Your task to perform on an android device: Show the shopping cart on amazon.com. Add "apple airpods pro" to the cart on amazon.com, then select checkout. Image 0: 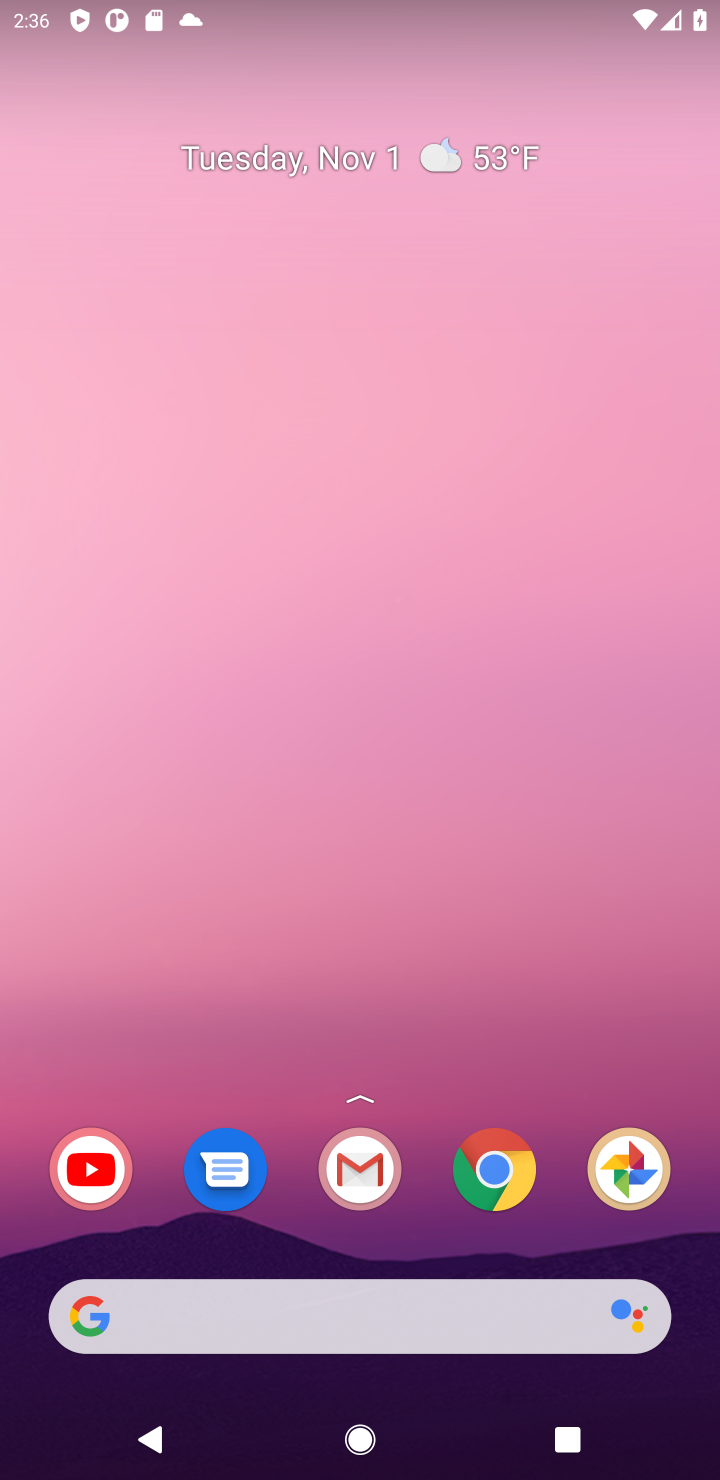
Step 0: click (507, 1198)
Your task to perform on an android device: Show the shopping cart on amazon.com. Add "apple airpods pro" to the cart on amazon.com, then select checkout. Image 1: 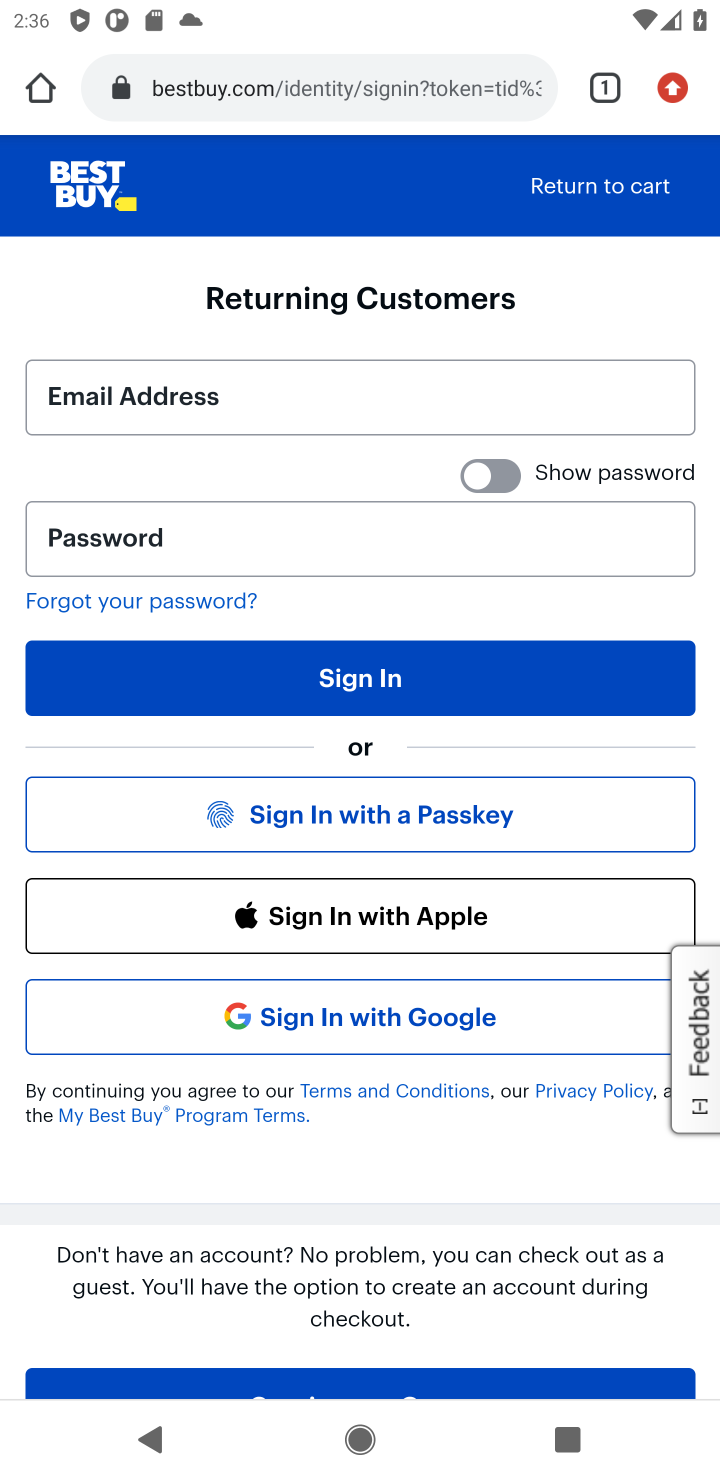
Step 1: click (296, 71)
Your task to perform on an android device: Show the shopping cart on amazon.com. Add "apple airpods pro" to the cart on amazon.com, then select checkout. Image 2: 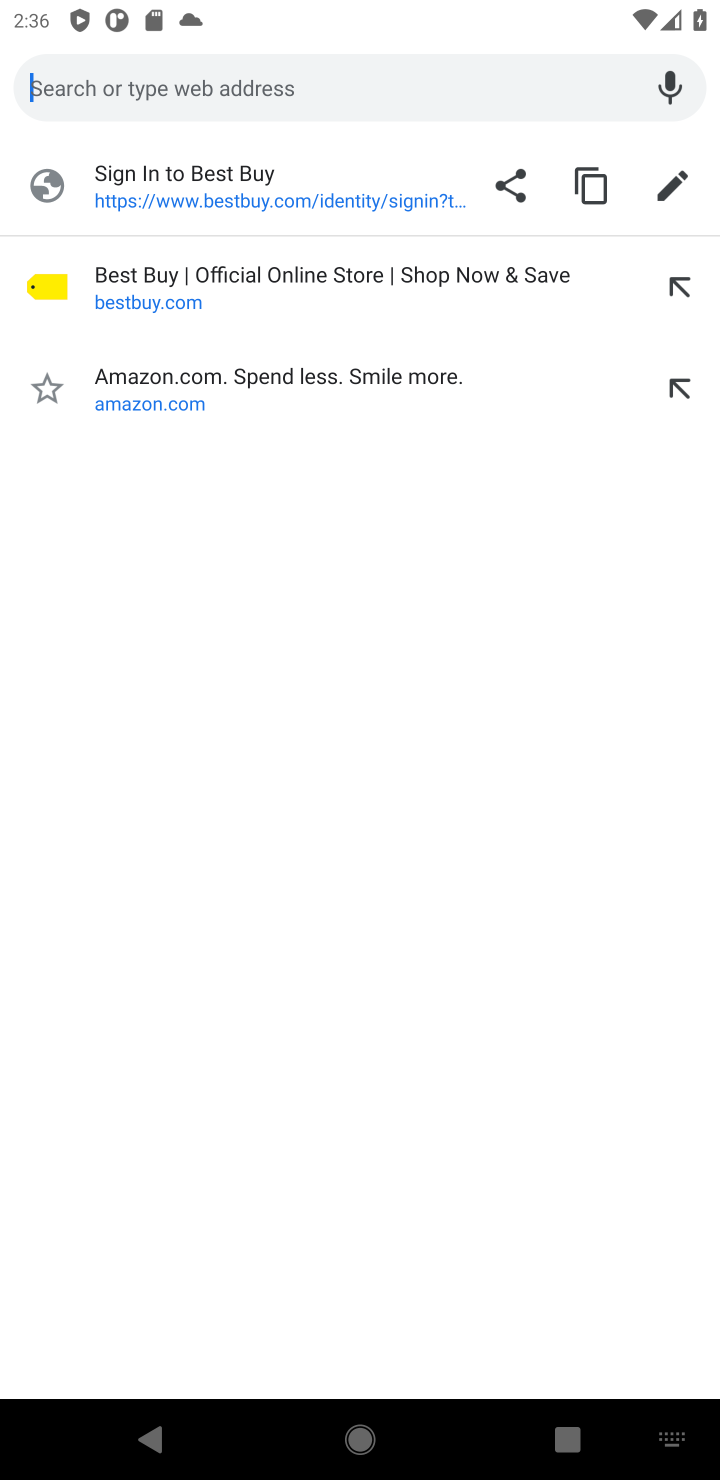
Step 2: click (327, 393)
Your task to perform on an android device: Show the shopping cart on amazon.com. Add "apple airpods pro" to the cart on amazon.com, then select checkout. Image 3: 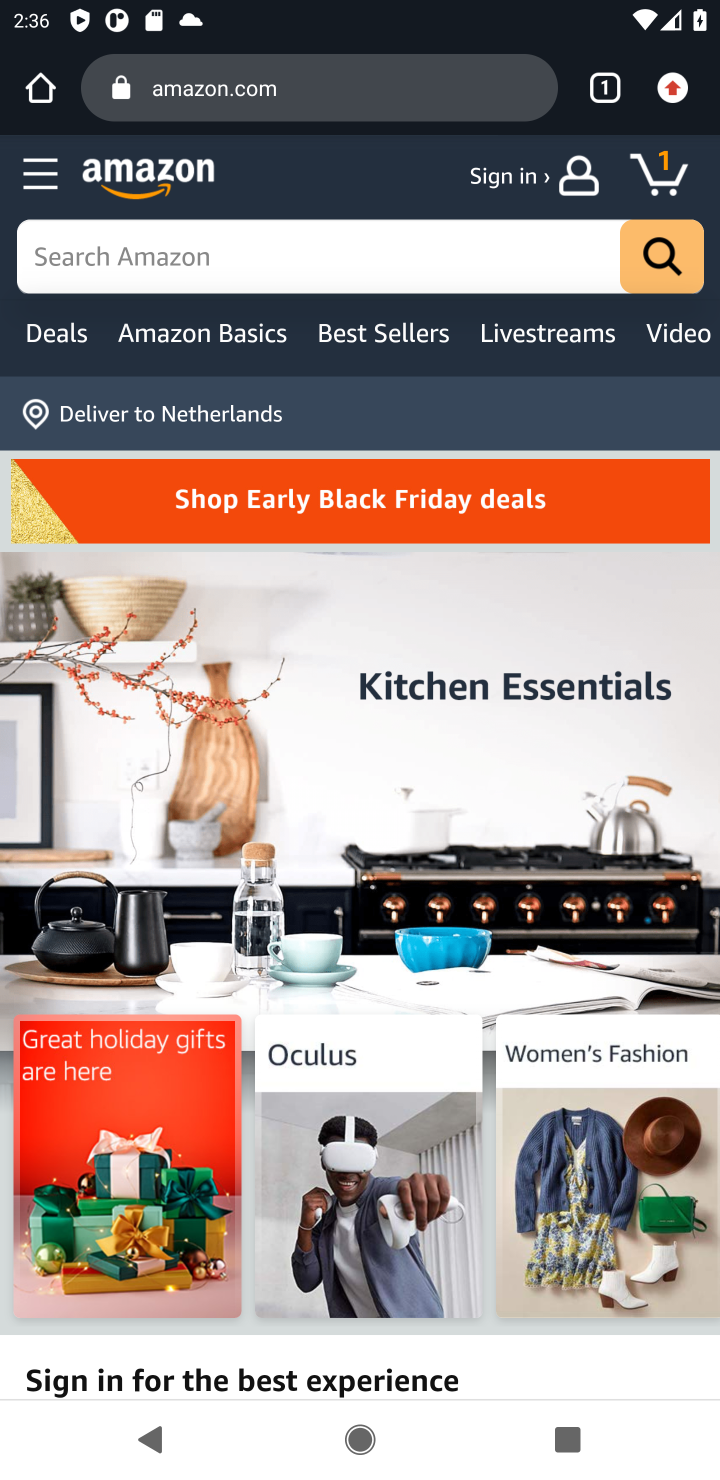
Step 3: click (682, 182)
Your task to perform on an android device: Show the shopping cart on amazon.com. Add "apple airpods pro" to the cart on amazon.com, then select checkout. Image 4: 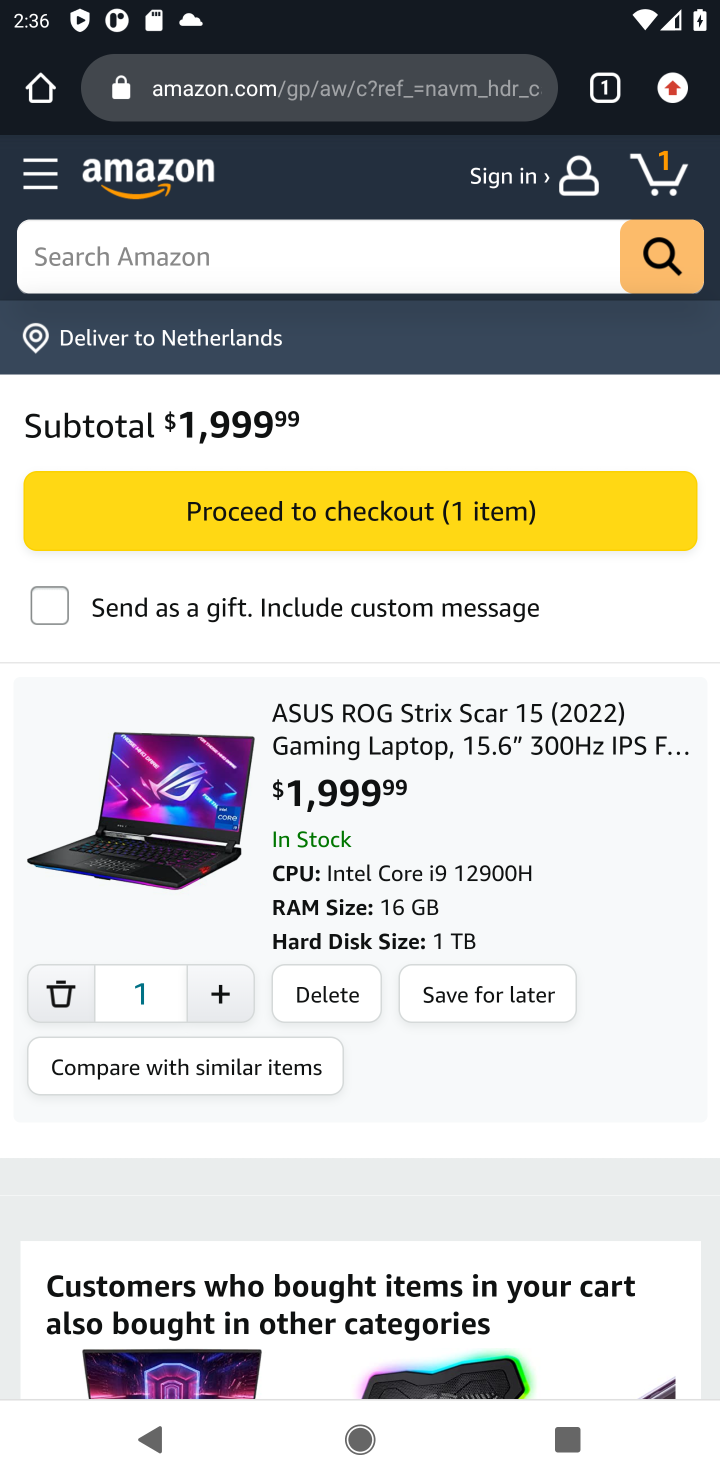
Step 4: click (400, 253)
Your task to perform on an android device: Show the shopping cart on amazon.com. Add "apple airpods pro" to the cart on amazon.com, then select checkout. Image 5: 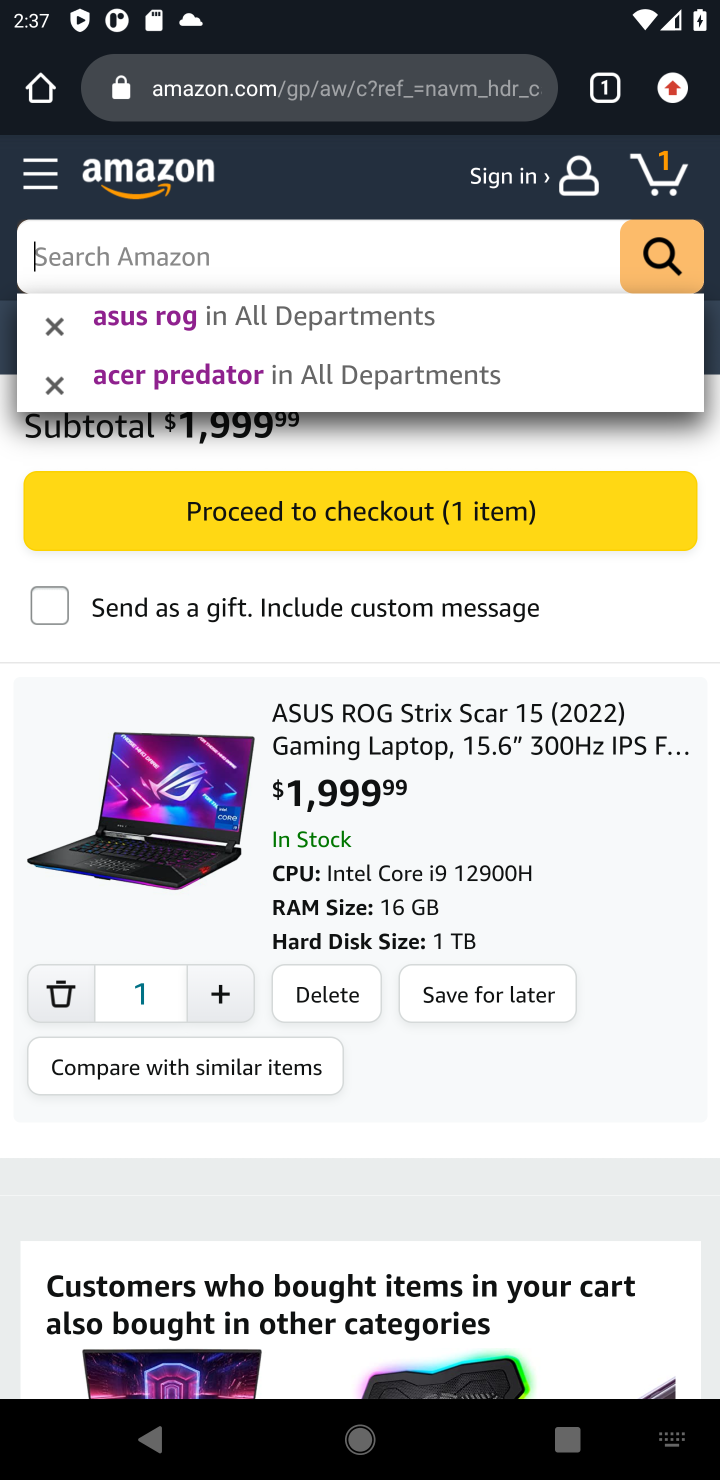
Step 5: type "apple airpods pro"
Your task to perform on an android device: Show the shopping cart on amazon.com. Add "apple airpods pro" to the cart on amazon.com, then select checkout. Image 6: 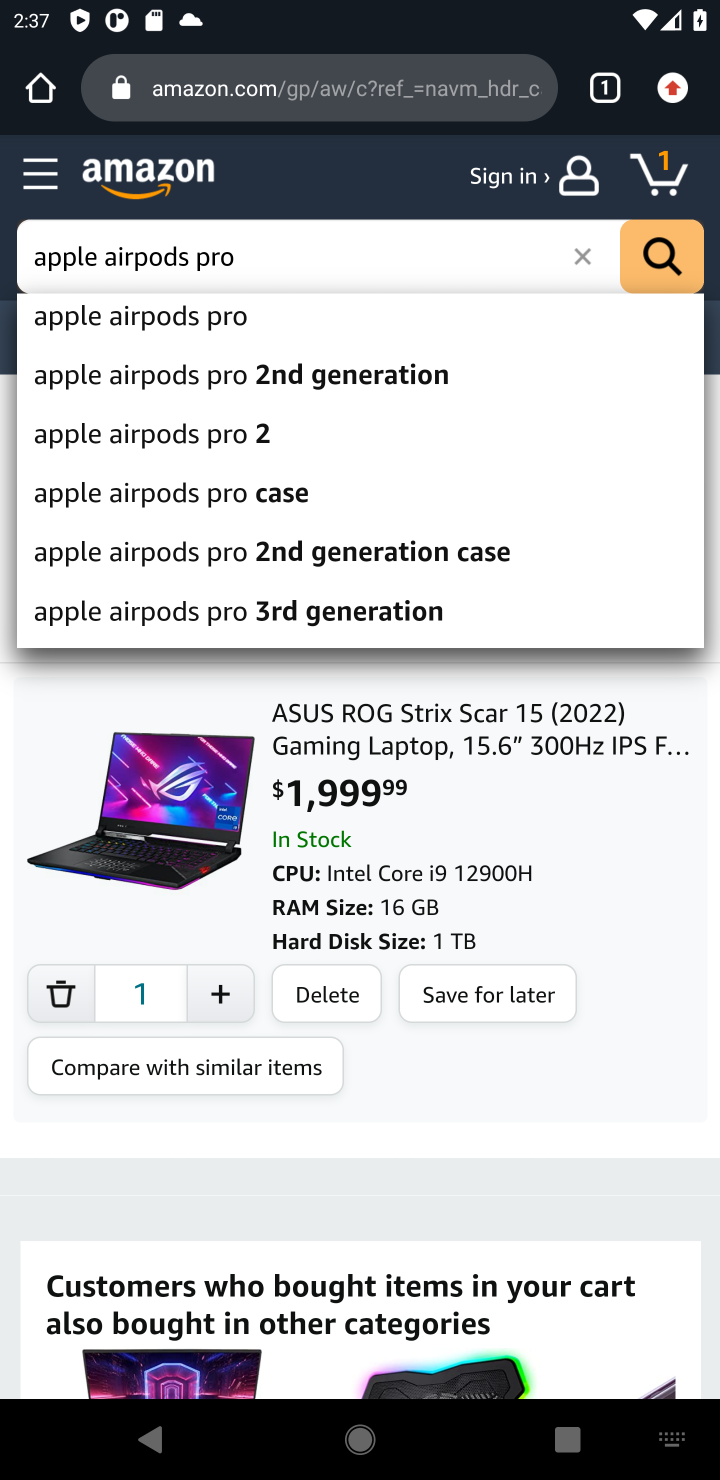
Step 6: click (634, 271)
Your task to perform on an android device: Show the shopping cart on amazon.com. Add "apple airpods pro" to the cart on amazon.com, then select checkout. Image 7: 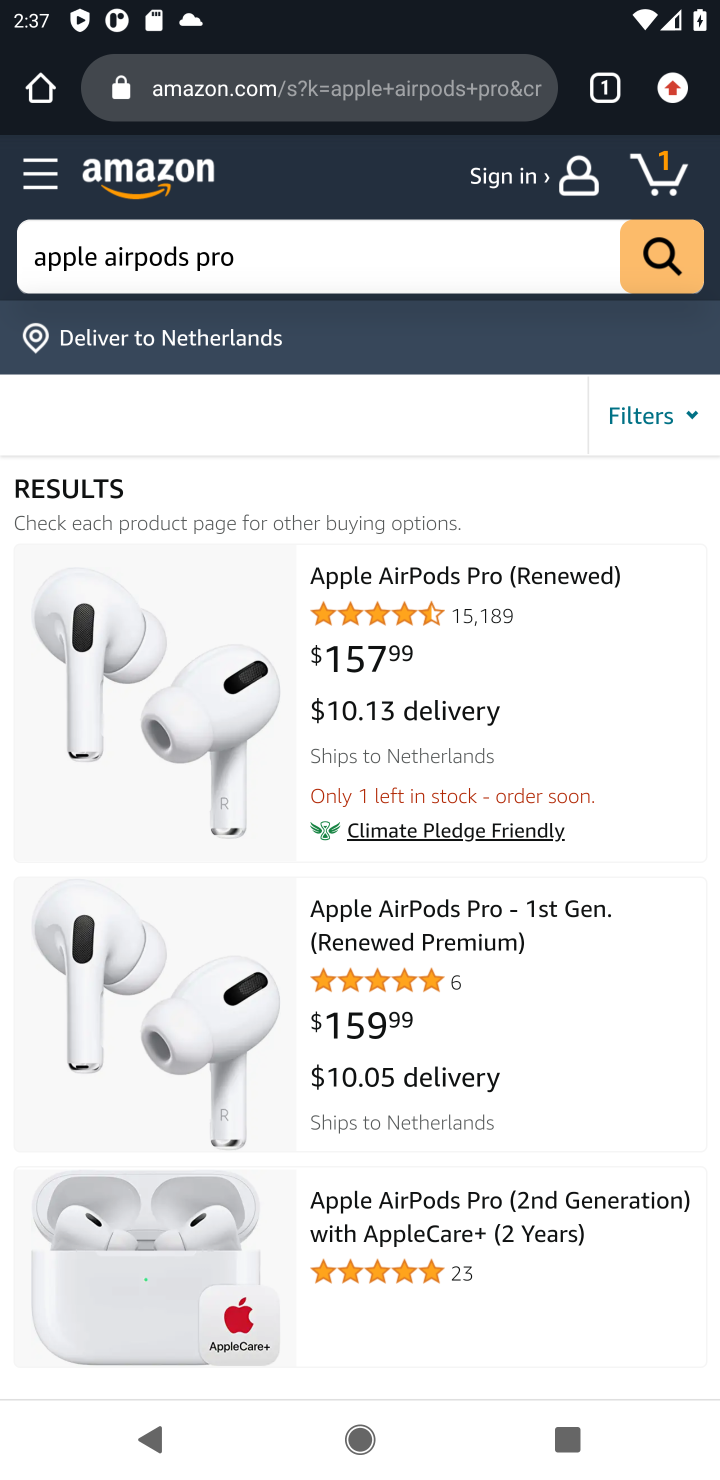
Step 7: click (384, 594)
Your task to perform on an android device: Show the shopping cart on amazon.com. Add "apple airpods pro" to the cart on amazon.com, then select checkout. Image 8: 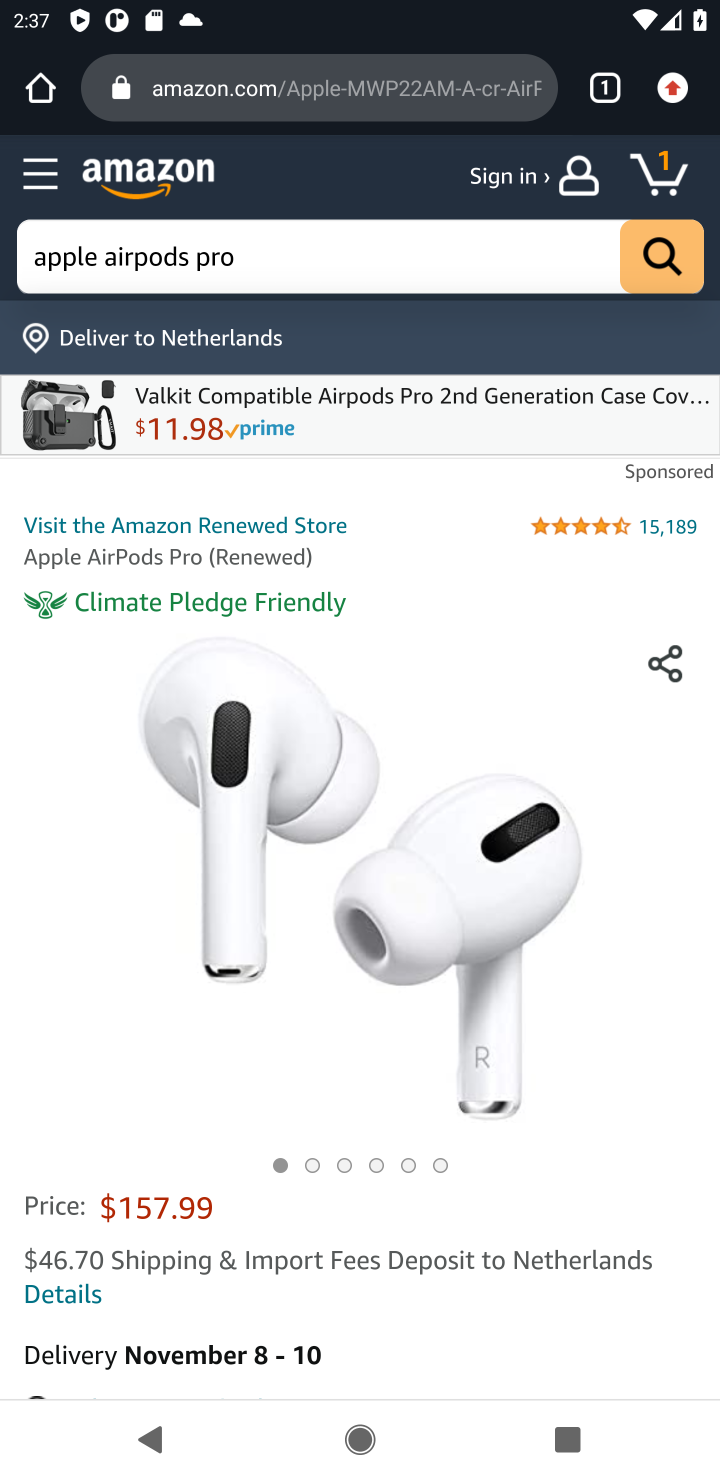
Step 8: drag from (329, 1350) to (156, 441)
Your task to perform on an android device: Show the shopping cart on amazon.com. Add "apple airpods pro" to the cart on amazon.com, then select checkout. Image 9: 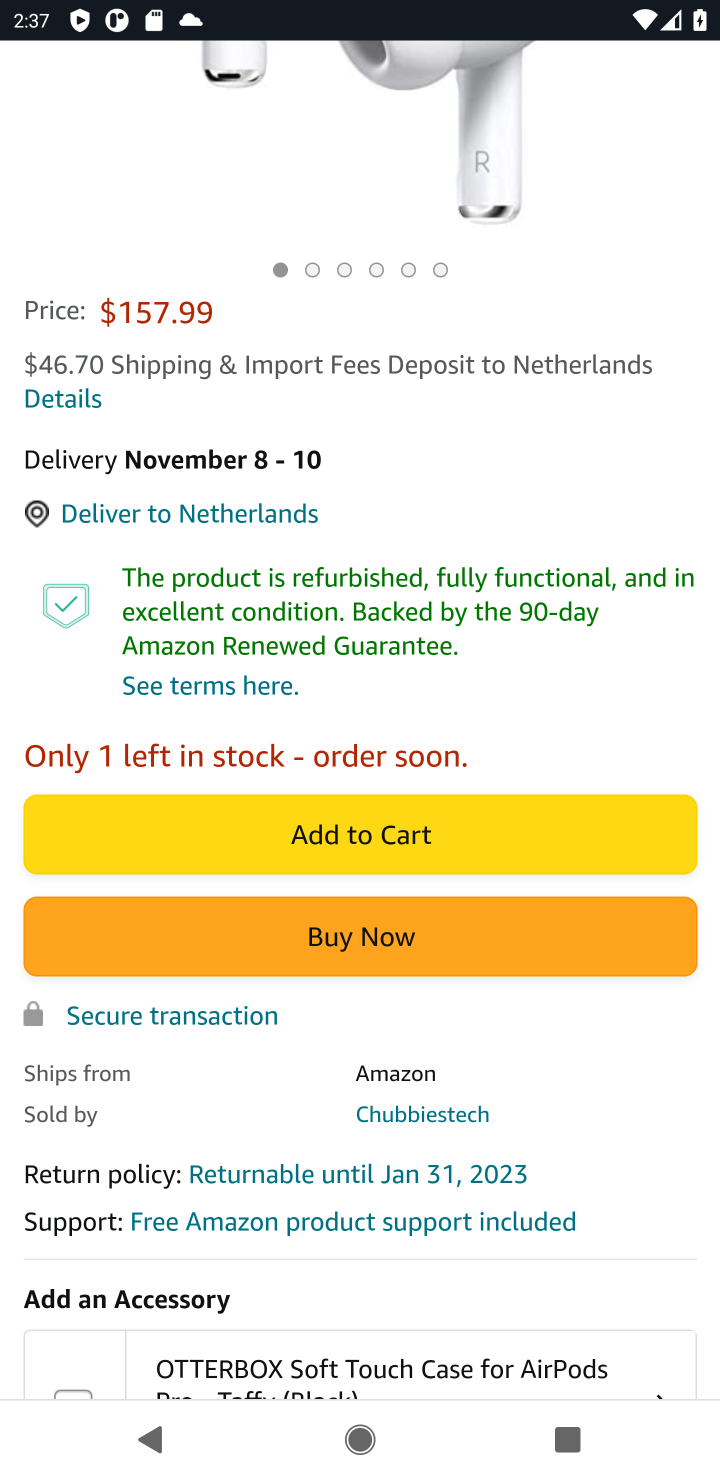
Step 9: click (449, 822)
Your task to perform on an android device: Show the shopping cart on amazon.com. Add "apple airpods pro" to the cart on amazon.com, then select checkout. Image 10: 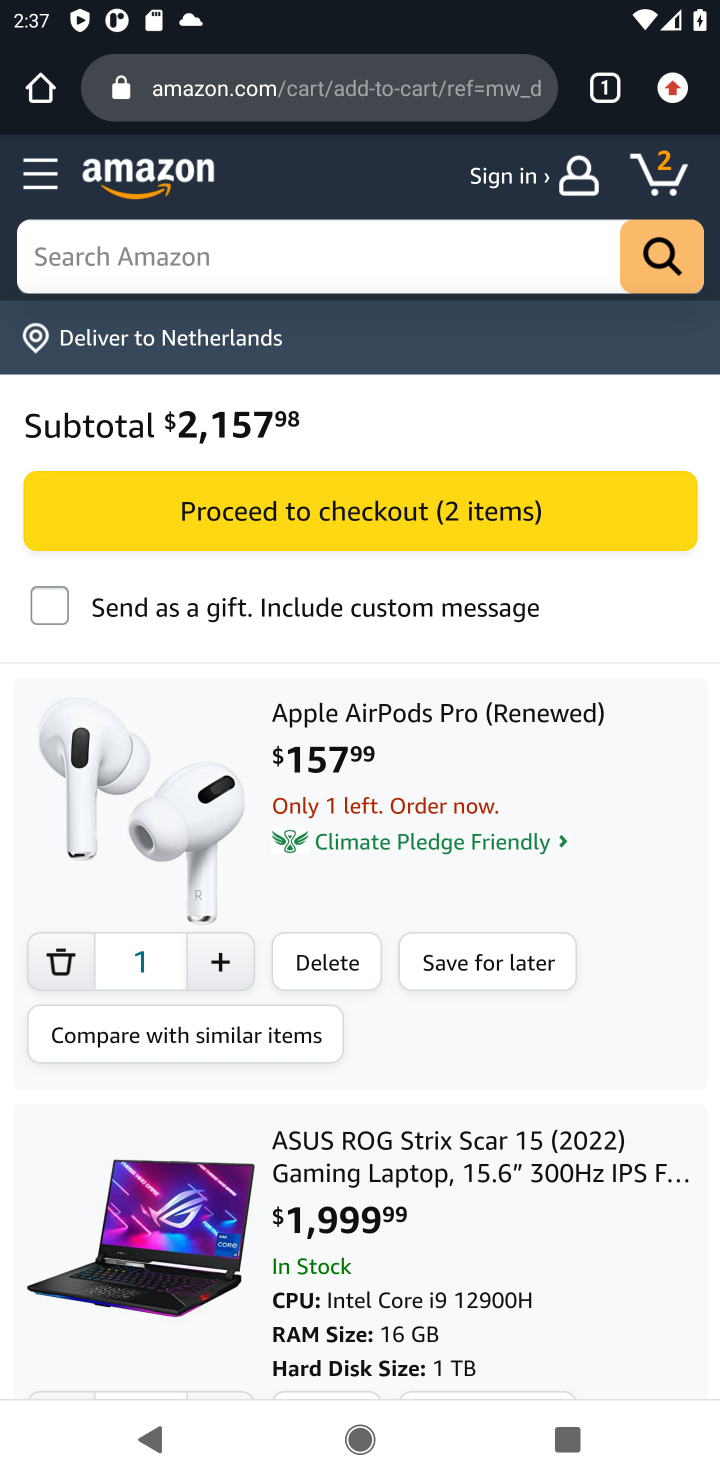
Step 10: click (478, 525)
Your task to perform on an android device: Show the shopping cart on amazon.com. Add "apple airpods pro" to the cart on amazon.com, then select checkout. Image 11: 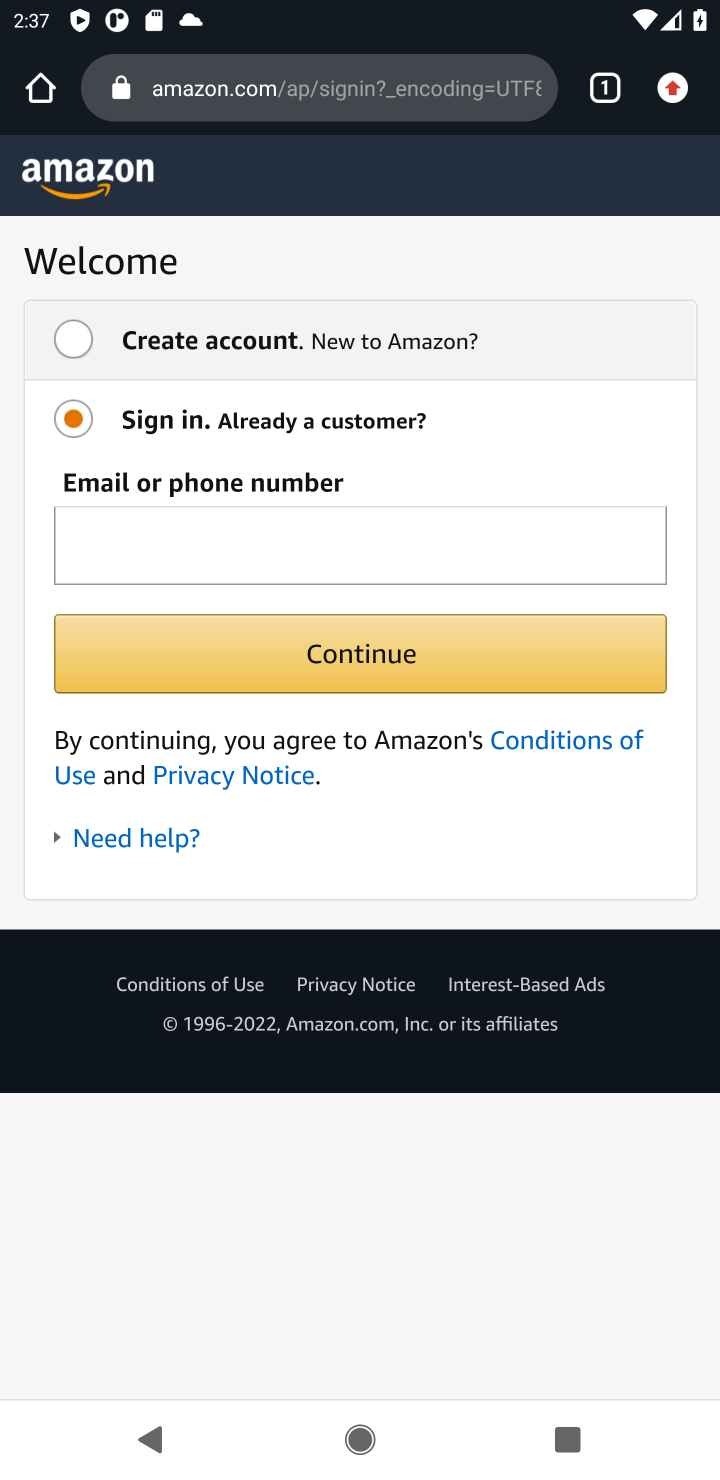
Step 11: task complete